Your task to perform on an android device: Open network settings Image 0: 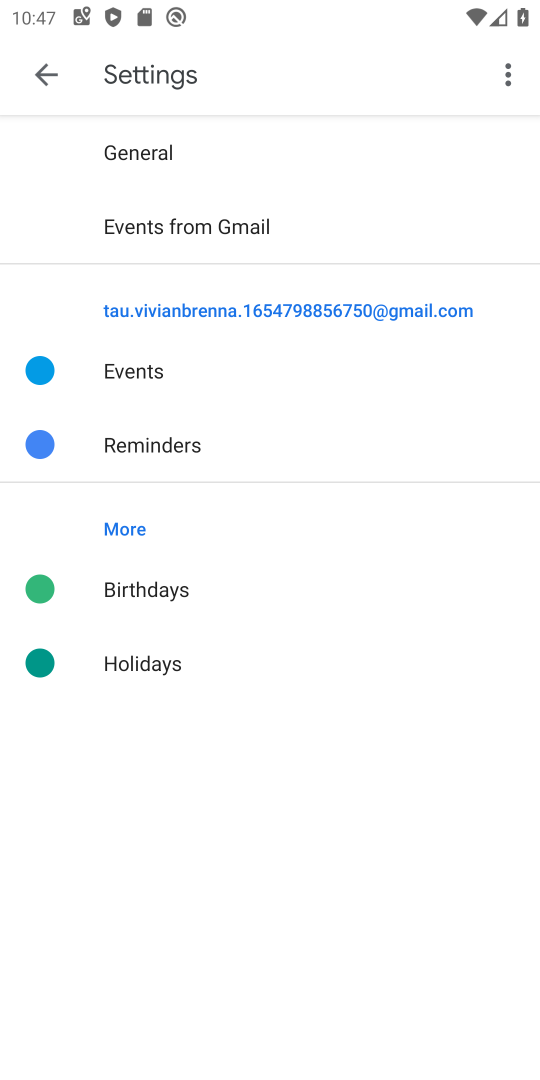
Step 0: press home button
Your task to perform on an android device: Open network settings Image 1: 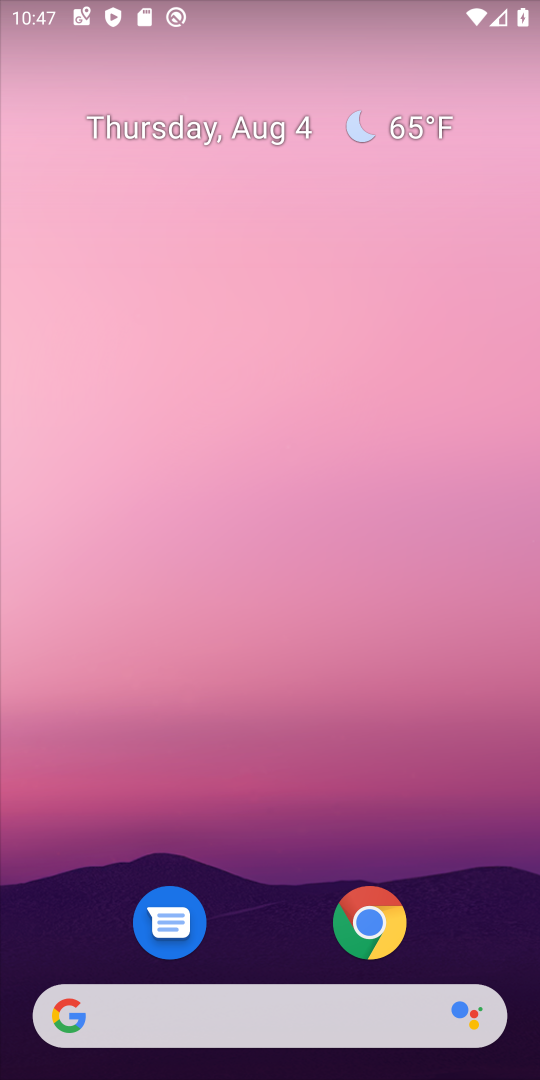
Step 1: drag from (184, 697) to (133, 431)
Your task to perform on an android device: Open network settings Image 2: 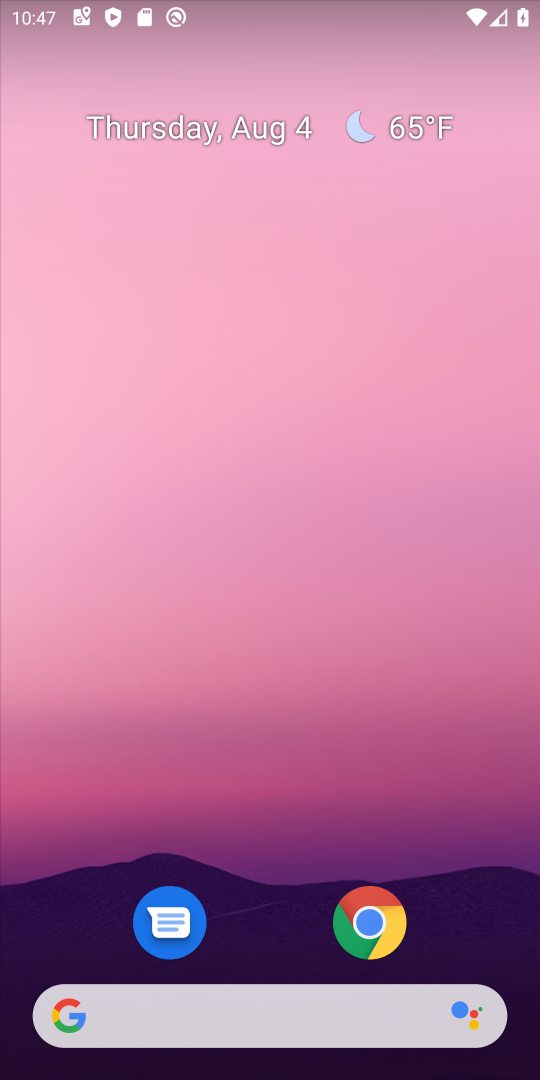
Step 2: drag from (264, 983) to (130, 407)
Your task to perform on an android device: Open network settings Image 3: 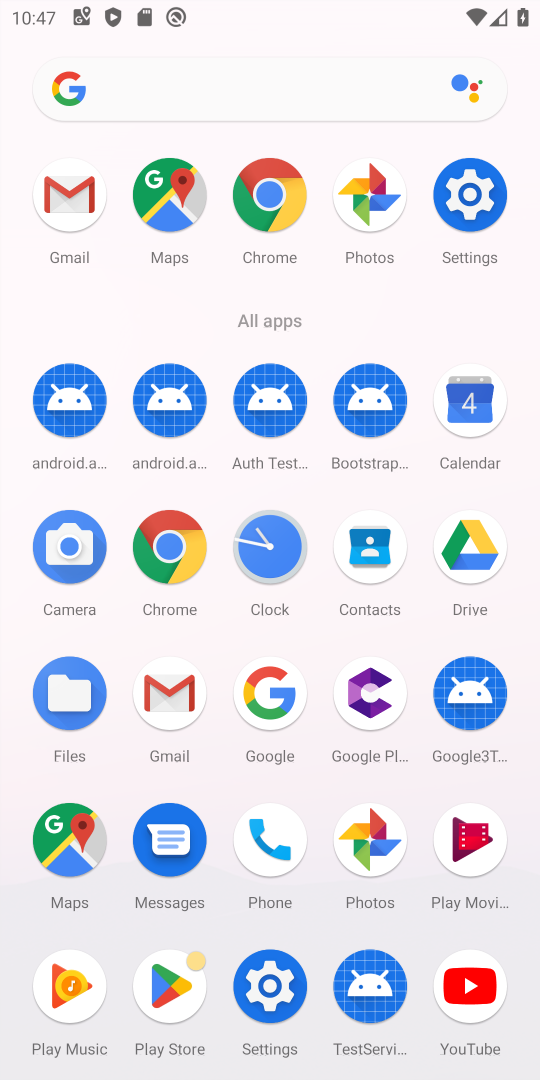
Step 3: click (487, 171)
Your task to perform on an android device: Open network settings Image 4: 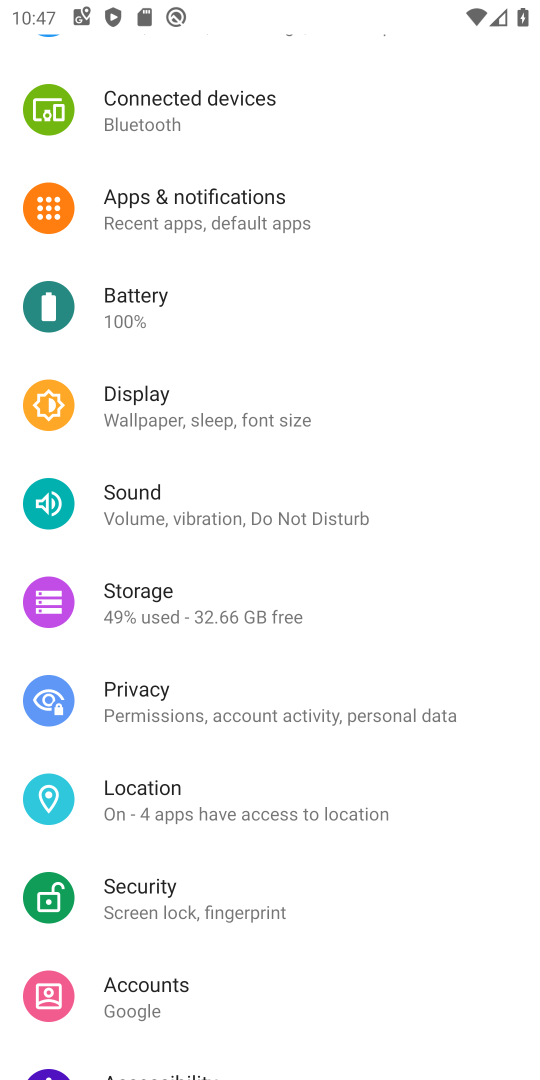
Step 4: drag from (200, 137) to (345, 675)
Your task to perform on an android device: Open network settings Image 5: 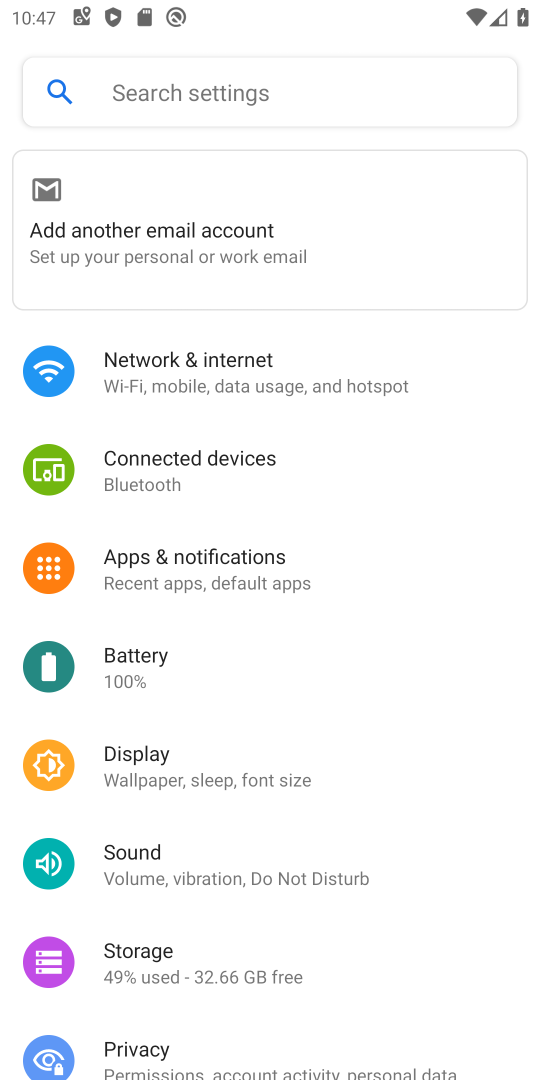
Step 5: click (205, 383)
Your task to perform on an android device: Open network settings Image 6: 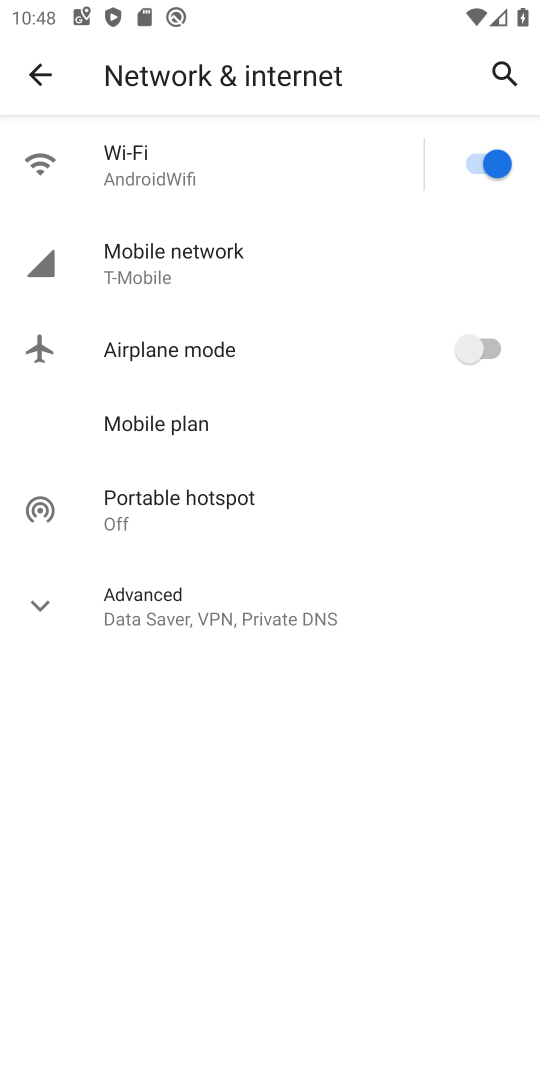
Step 6: click (163, 258)
Your task to perform on an android device: Open network settings Image 7: 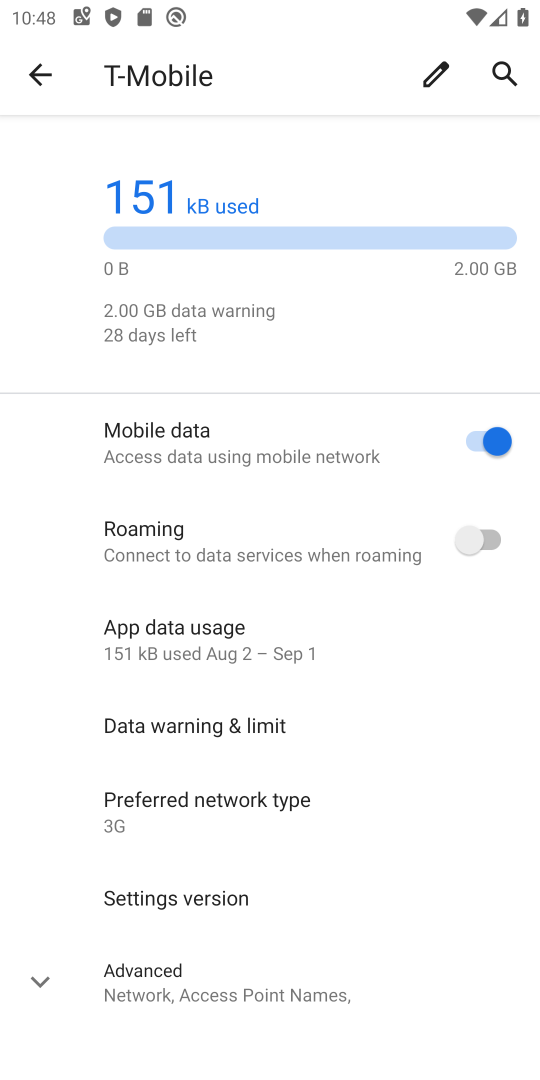
Step 7: click (243, 974)
Your task to perform on an android device: Open network settings Image 8: 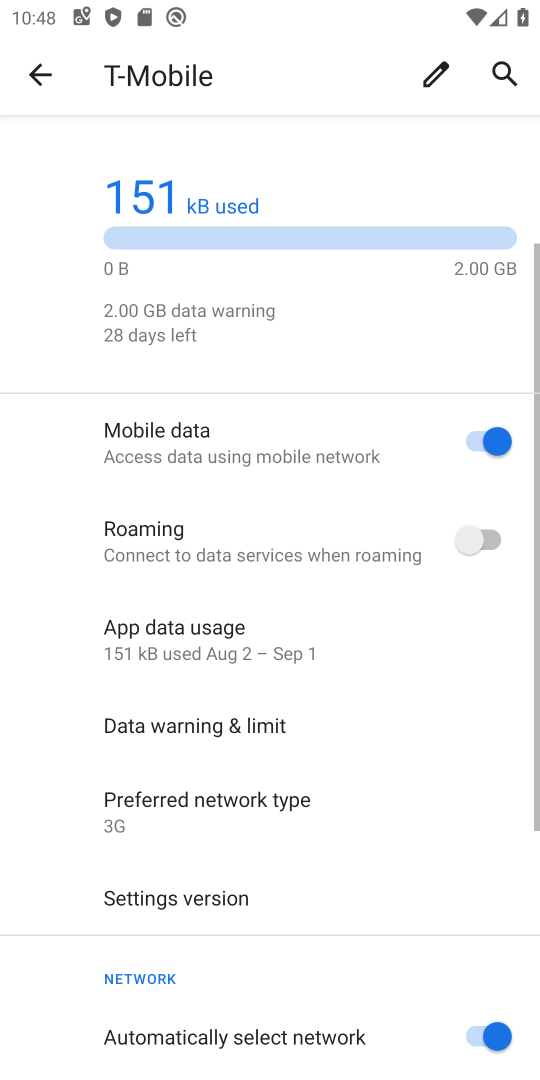
Step 8: task complete